Your task to perform on an android device: turn on airplane mode Image 0: 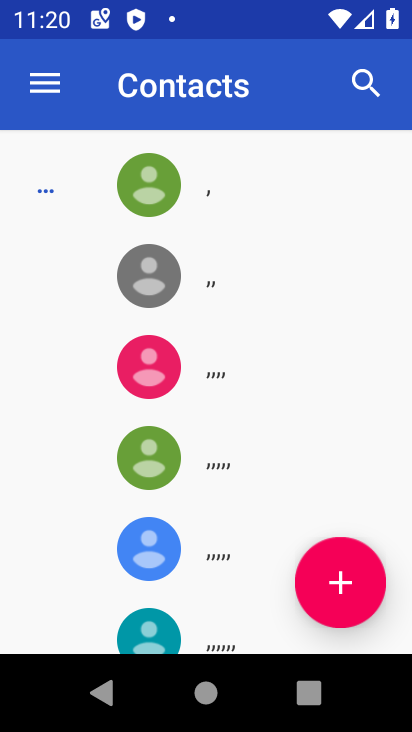
Step 0: press home button
Your task to perform on an android device: turn on airplane mode Image 1: 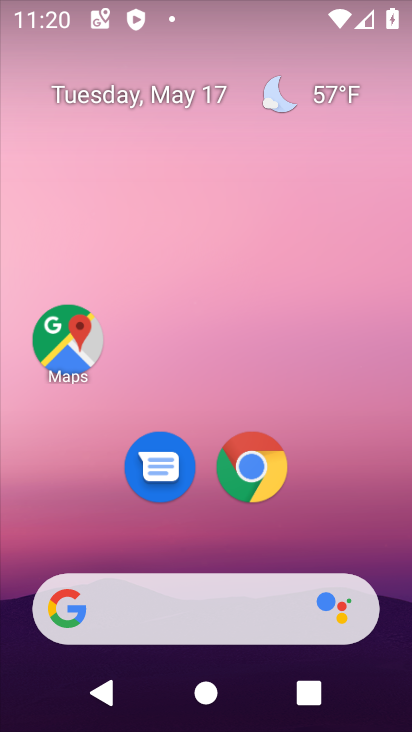
Step 1: drag from (233, 653) to (356, 191)
Your task to perform on an android device: turn on airplane mode Image 2: 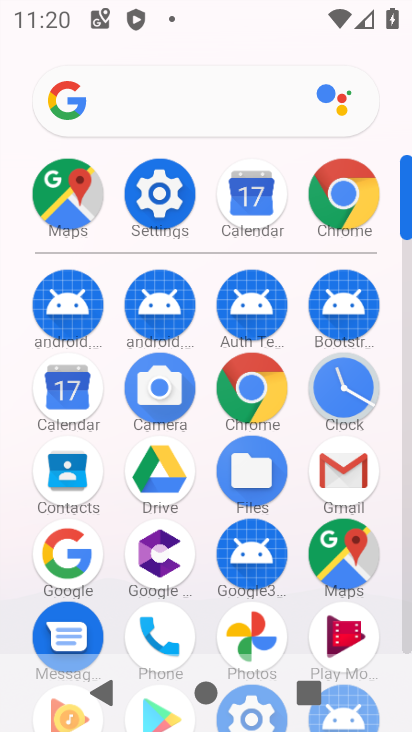
Step 2: click (156, 218)
Your task to perform on an android device: turn on airplane mode Image 3: 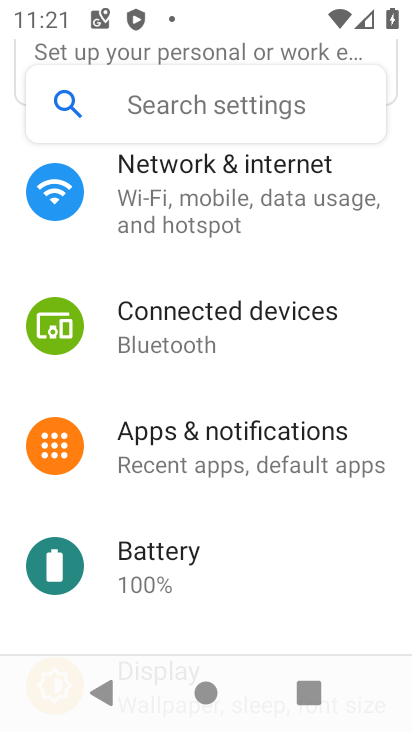
Step 3: click (219, 199)
Your task to perform on an android device: turn on airplane mode Image 4: 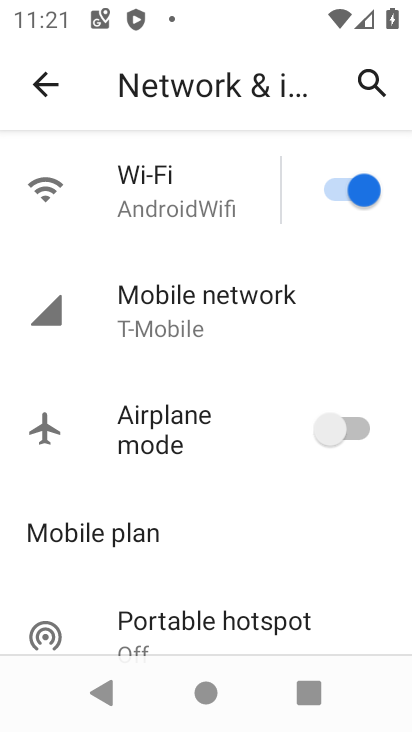
Step 4: click (275, 433)
Your task to perform on an android device: turn on airplane mode Image 5: 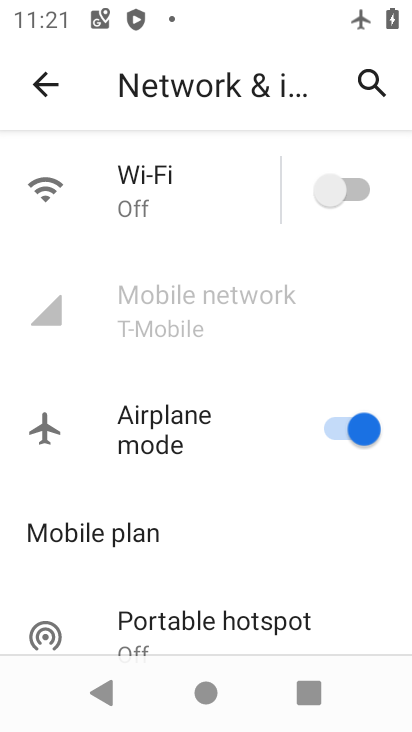
Step 5: task complete